Your task to perform on an android device: Open Chrome and go to the settings page Image 0: 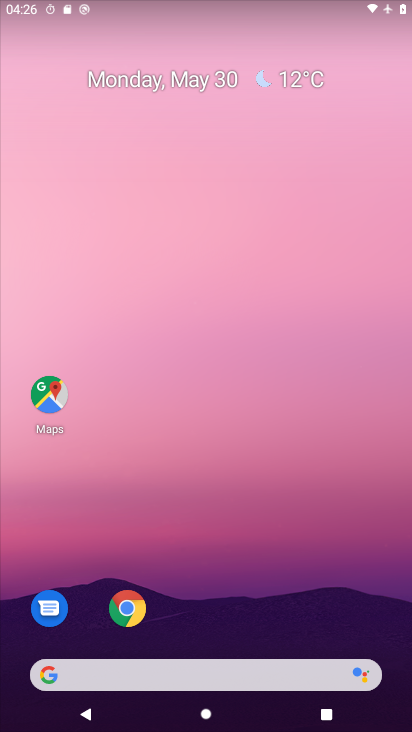
Step 0: click (133, 606)
Your task to perform on an android device: Open Chrome and go to the settings page Image 1: 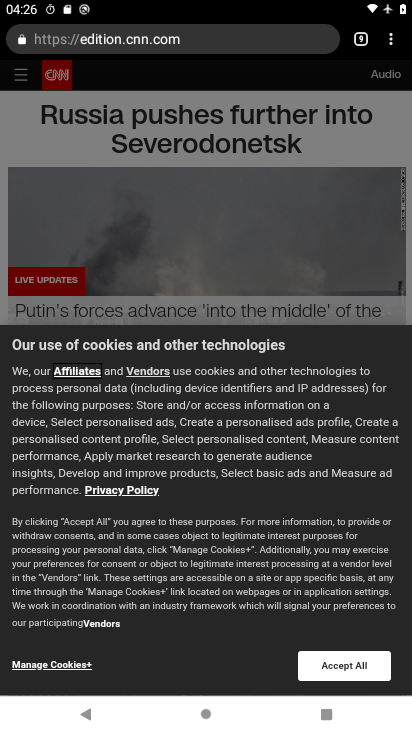
Step 1: click (393, 38)
Your task to perform on an android device: Open Chrome and go to the settings page Image 2: 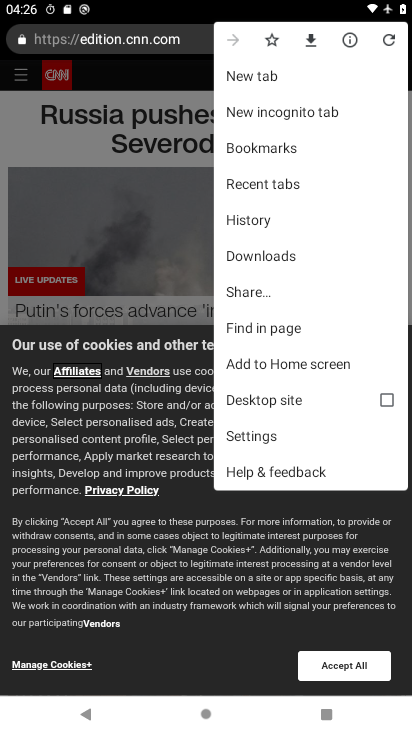
Step 2: click (269, 434)
Your task to perform on an android device: Open Chrome and go to the settings page Image 3: 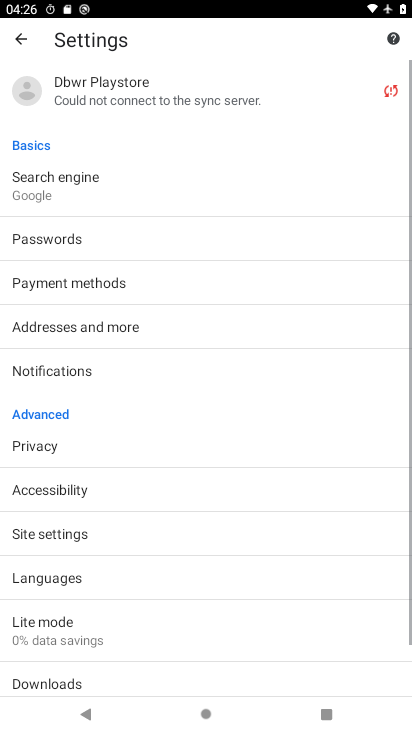
Step 3: task complete